Your task to perform on an android device: Show me popular games on the Play Store Image 0: 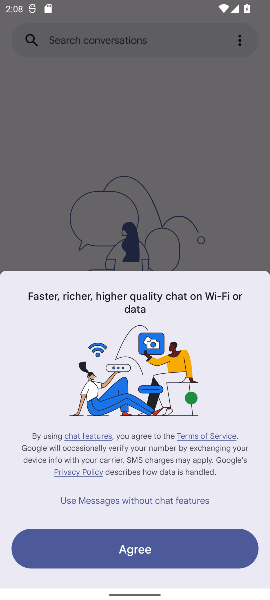
Step 0: task complete